Your task to perform on an android device: Open Youtube and go to the subscriptions tab Image 0: 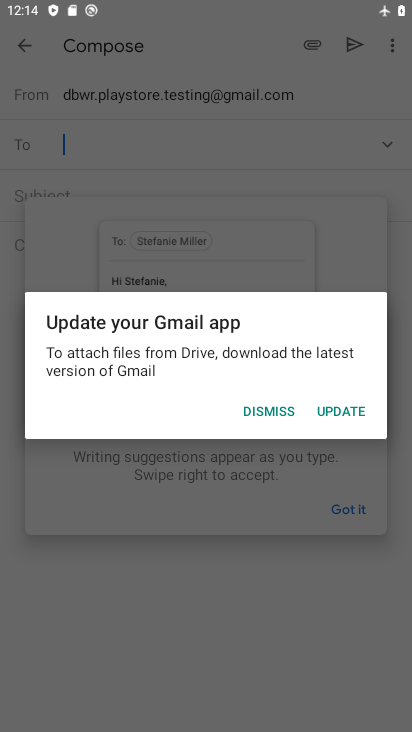
Step 0: press home button
Your task to perform on an android device: Open Youtube and go to the subscriptions tab Image 1: 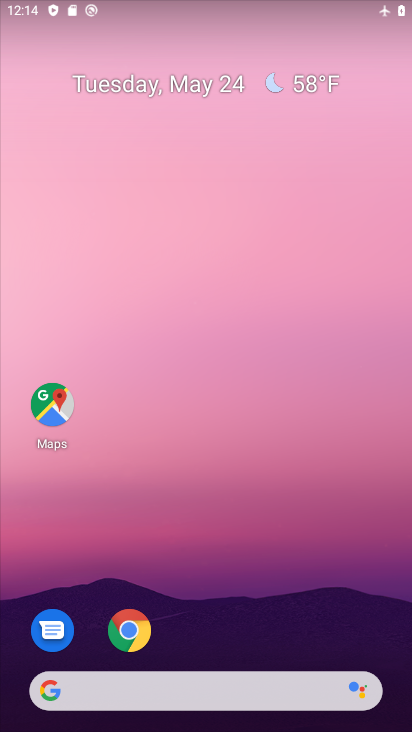
Step 1: drag from (262, 581) to (208, 106)
Your task to perform on an android device: Open Youtube and go to the subscriptions tab Image 2: 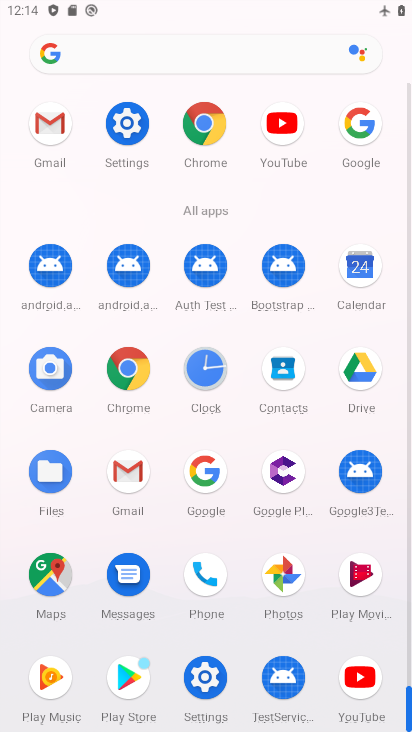
Step 2: click (282, 123)
Your task to perform on an android device: Open Youtube and go to the subscriptions tab Image 3: 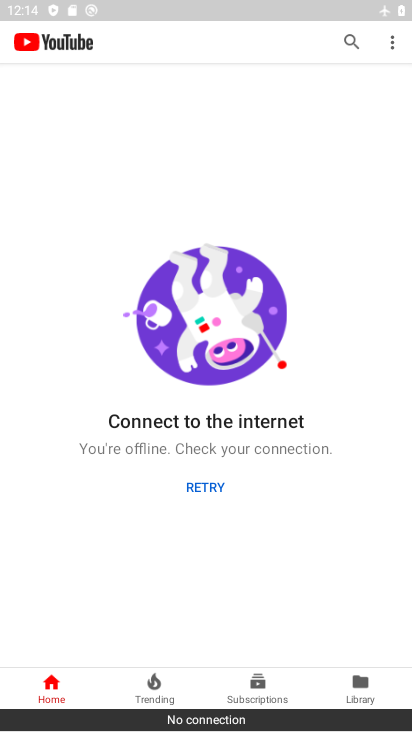
Step 3: click (218, 493)
Your task to perform on an android device: Open Youtube and go to the subscriptions tab Image 4: 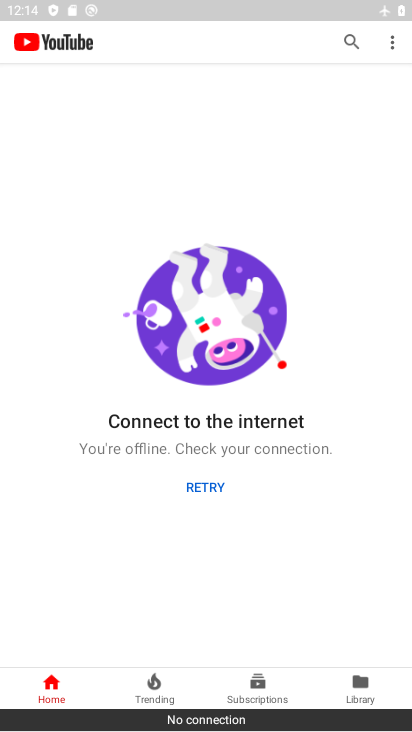
Step 4: click (245, 676)
Your task to perform on an android device: Open Youtube and go to the subscriptions tab Image 5: 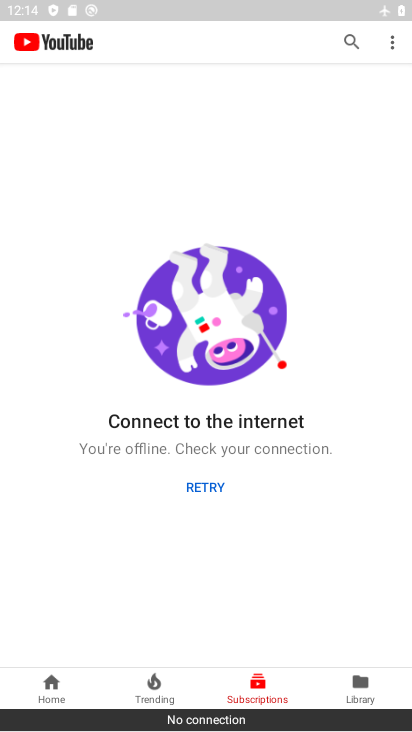
Step 5: task complete